Your task to perform on an android device: Open CNN.com Image 0: 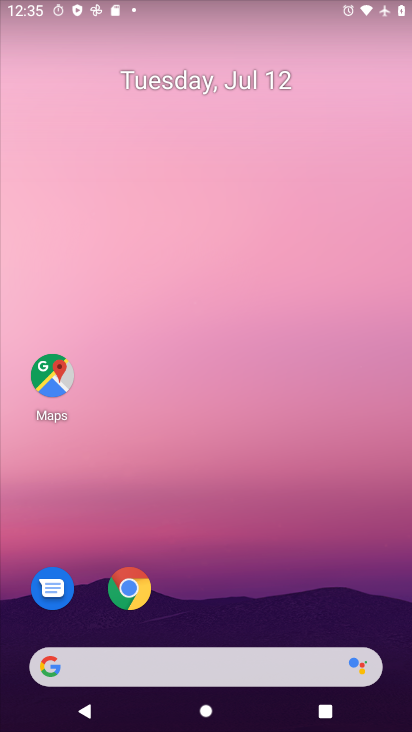
Step 0: press home button
Your task to perform on an android device: Open CNN.com Image 1: 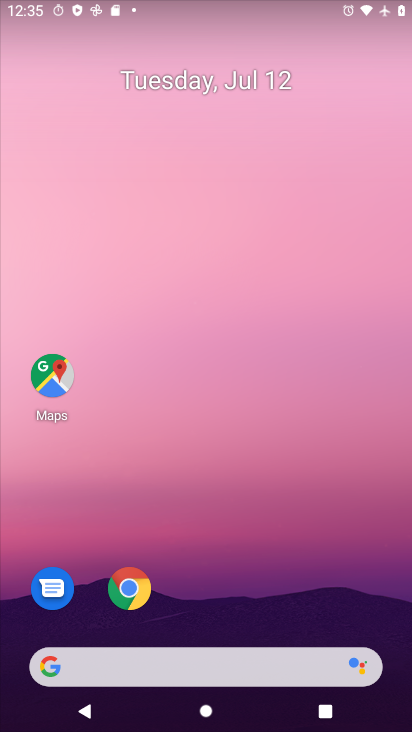
Step 1: click (134, 587)
Your task to perform on an android device: Open CNN.com Image 2: 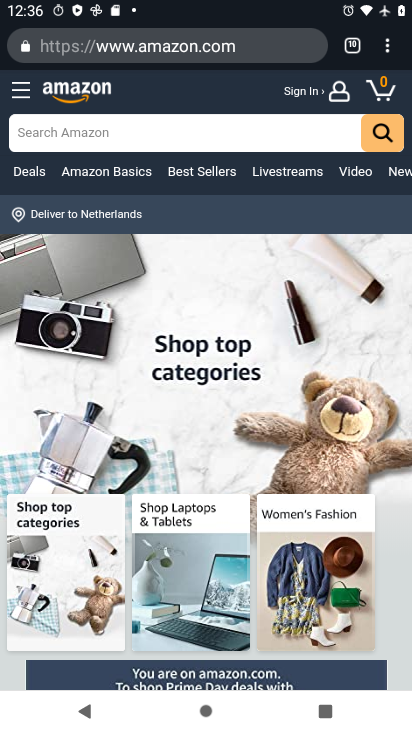
Step 2: drag from (387, 44) to (296, 86)
Your task to perform on an android device: Open CNN.com Image 3: 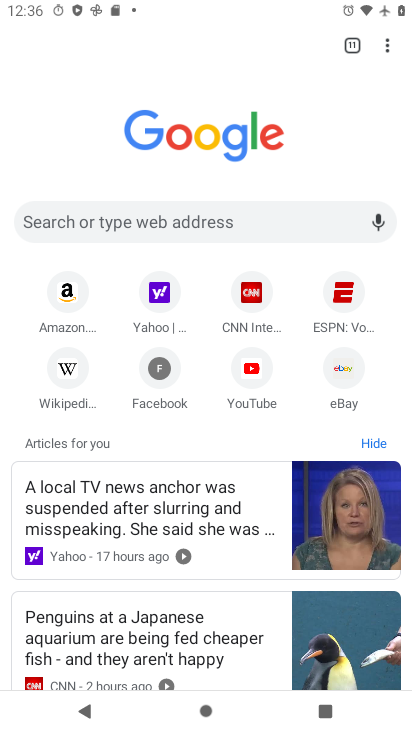
Step 3: click (121, 216)
Your task to perform on an android device: Open CNN.com Image 4: 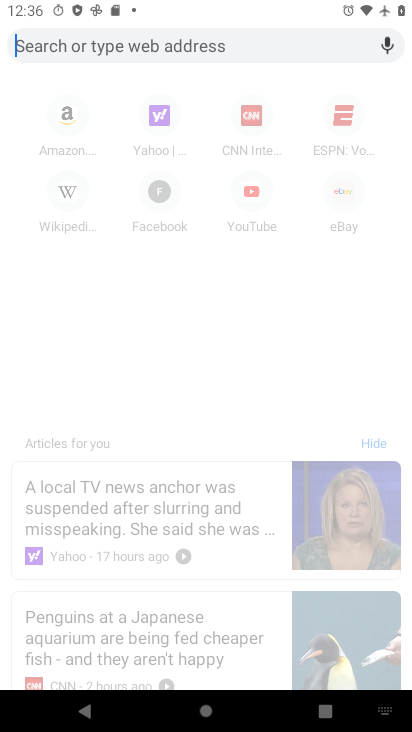
Step 4: type "cnn.com"
Your task to perform on an android device: Open CNN.com Image 5: 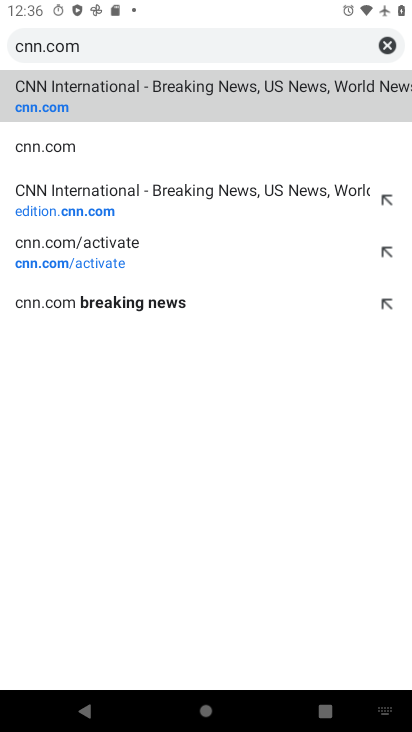
Step 5: click (212, 96)
Your task to perform on an android device: Open CNN.com Image 6: 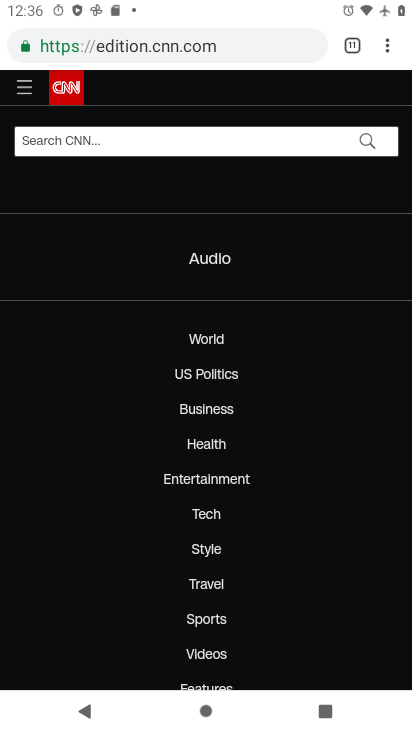
Step 6: task complete